Your task to perform on an android device: find snoozed emails in the gmail app Image 0: 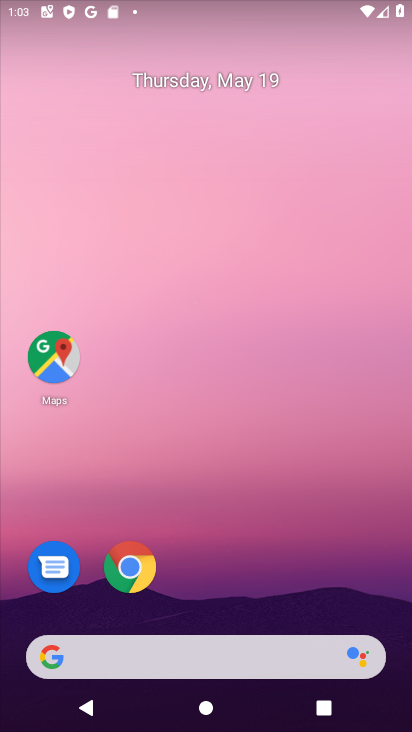
Step 0: drag from (340, 534) to (294, 47)
Your task to perform on an android device: find snoozed emails in the gmail app Image 1: 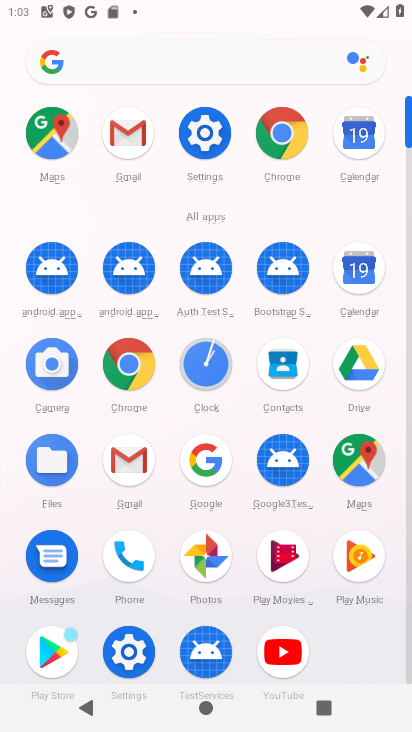
Step 1: click (119, 128)
Your task to perform on an android device: find snoozed emails in the gmail app Image 2: 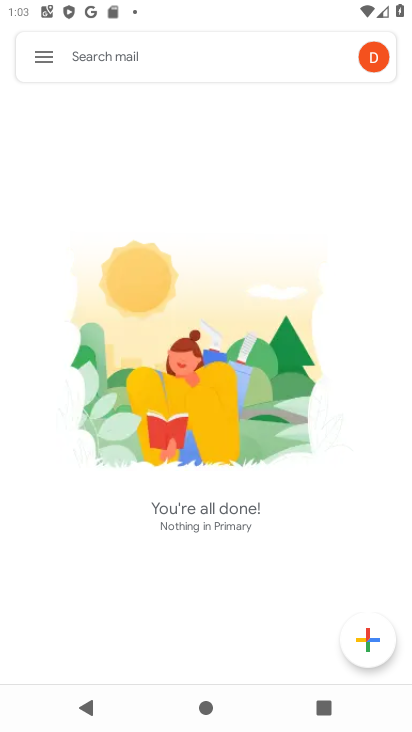
Step 2: click (52, 57)
Your task to perform on an android device: find snoozed emails in the gmail app Image 3: 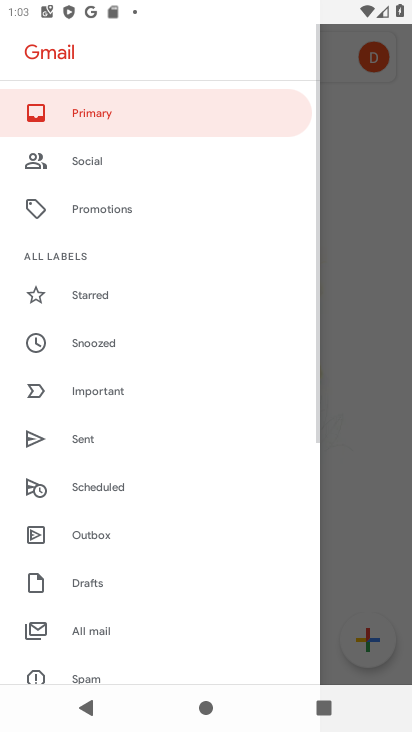
Step 3: drag from (115, 217) to (160, 676)
Your task to perform on an android device: find snoozed emails in the gmail app Image 4: 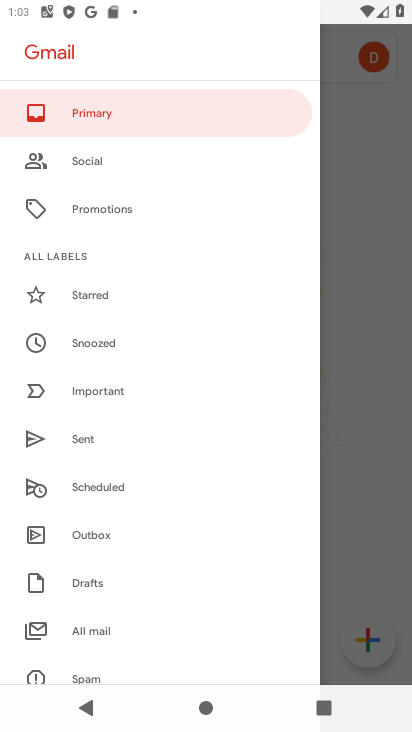
Step 4: click (96, 343)
Your task to perform on an android device: find snoozed emails in the gmail app Image 5: 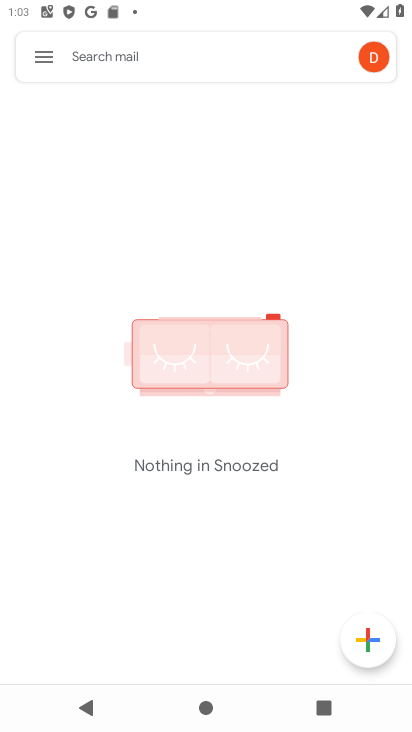
Step 5: task complete